Your task to perform on an android device: open sync settings in chrome Image 0: 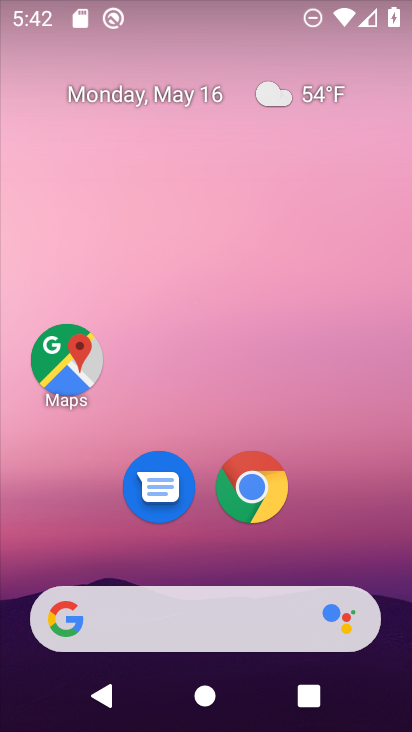
Step 0: click (249, 491)
Your task to perform on an android device: open sync settings in chrome Image 1: 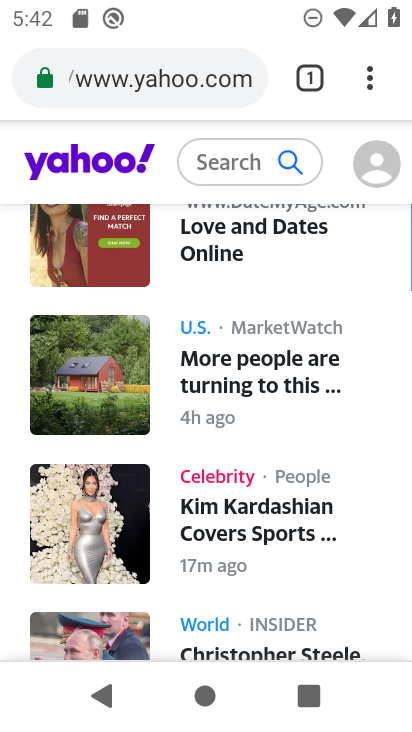
Step 1: click (363, 80)
Your task to perform on an android device: open sync settings in chrome Image 2: 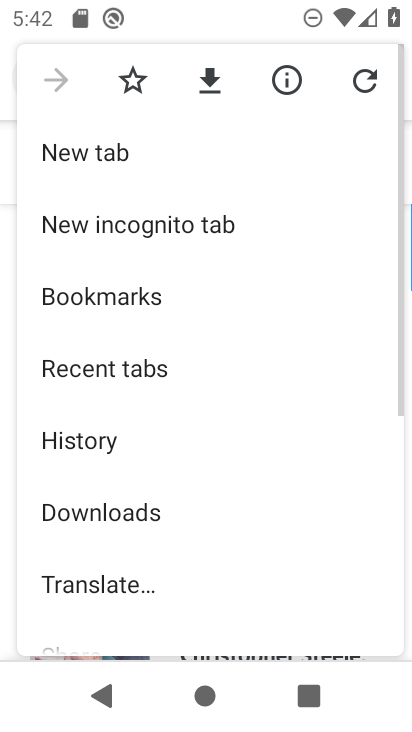
Step 2: drag from (196, 574) to (196, 194)
Your task to perform on an android device: open sync settings in chrome Image 3: 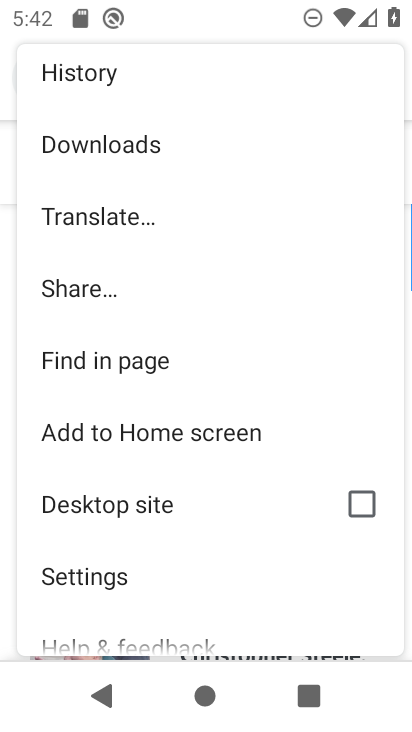
Step 3: drag from (144, 107) to (150, 531)
Your task to perform on an android device: open sync settings in chrome Image 4: 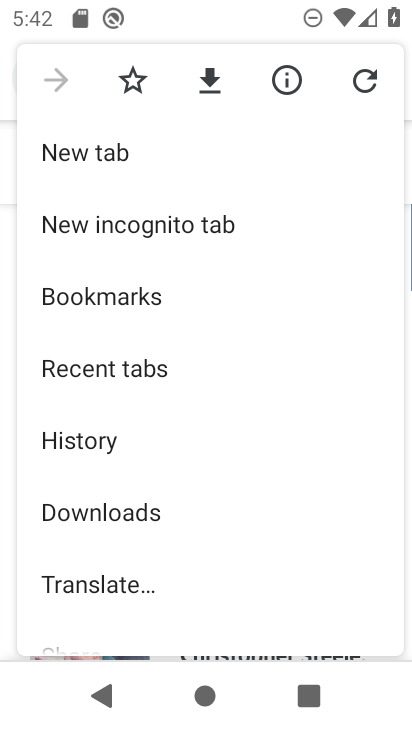
Step 4: drag from (129, 587) to (144, 203)
Your task to perform on an android device: open sync settings in chrome Image 5: 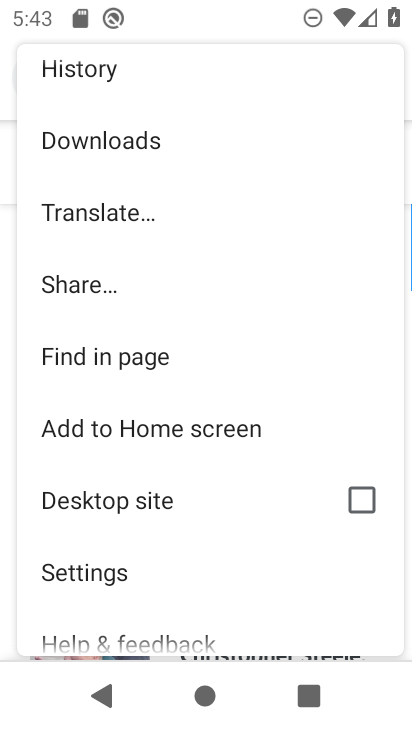
Step 5: drag from (145, 80) to (124, 521)
Your task to perform on an android device: open sync settings in chrome Image 6: 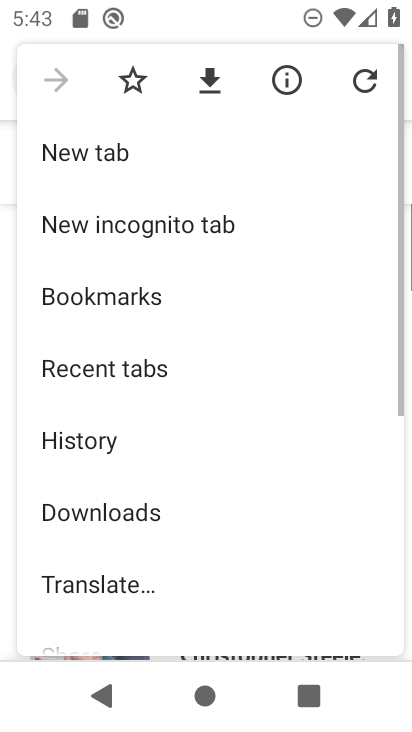
Step 6: drag from (135, 626) to (174, 248)
Your task to perform on an android device: open sync settings in chrome Image 7: 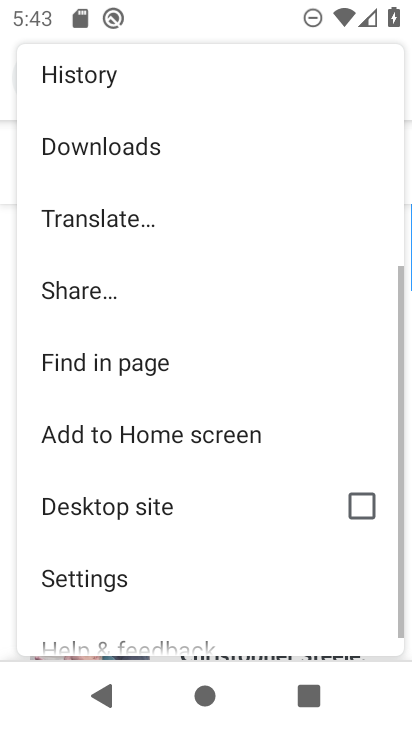
Step 7: click (109, 578)
Your task to perform on an android device: open sync settings in chrome Image 8: 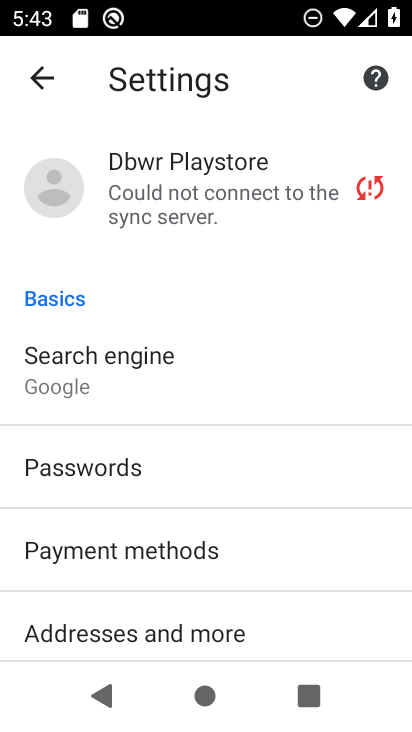
Step 8: click (191, 178)
Your task to perform on an android device: open sync settings in chrome Image 9: 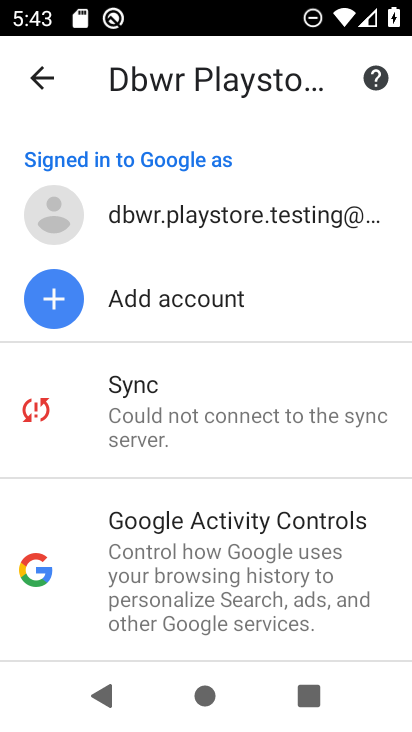
Step 9: click (161, 398)
Your task to perform on an android device: open sync settings in chrome Image 10: 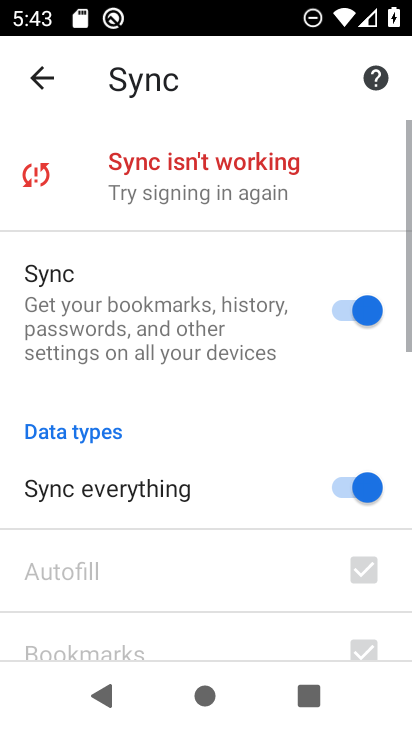
Step 10: task complete